Your task to perform on an android device: Open the phone app and click the voicemail tab. Image 0: 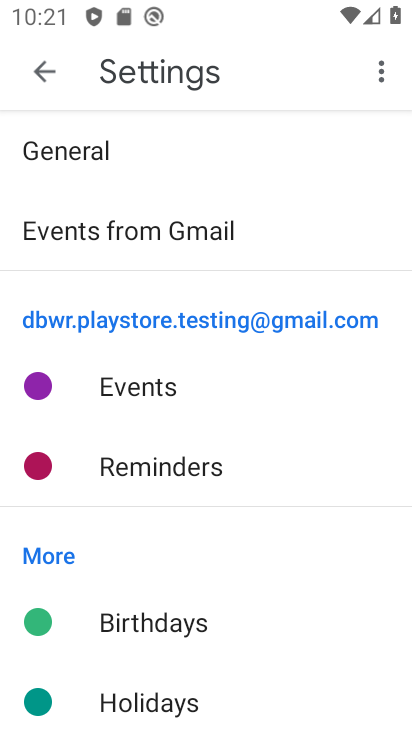
Step 0: press home button
Your task to perform on an android device: Open the phone app and click the voicemail tab. Image 1: 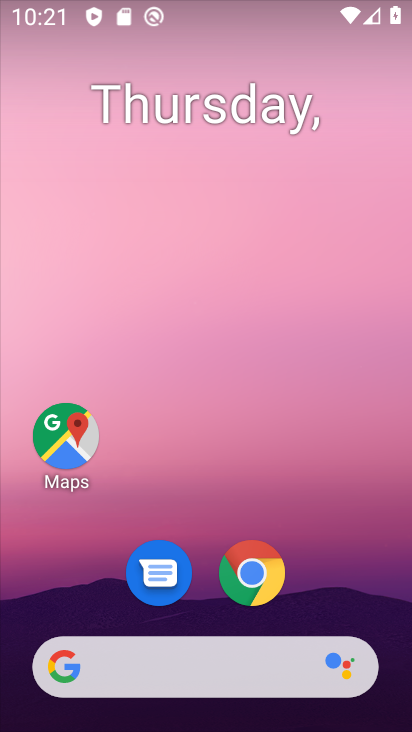
Step 1: drag from (304, 588) to (298, 130)
Your task to perform on an android device: Open the phone app and click the voicemail tab. Image 2: 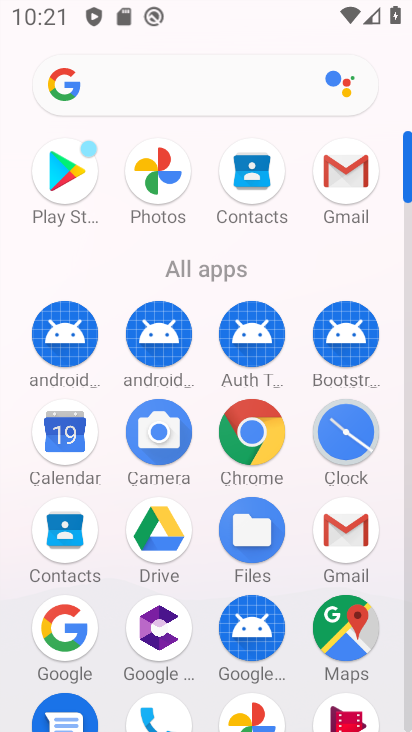
Step 2: drag from (284, 692) to (301, 535)
Your task to perform on an android device: Open the phone app and click the voicemail tab. Image 3: 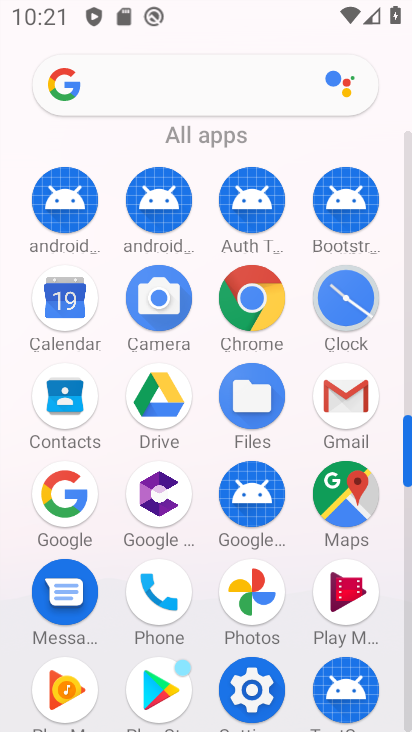
Step 3: click (156, 597)
Your task to perform on an android device: Open the phone app and click the voicemail tab. Image 4: 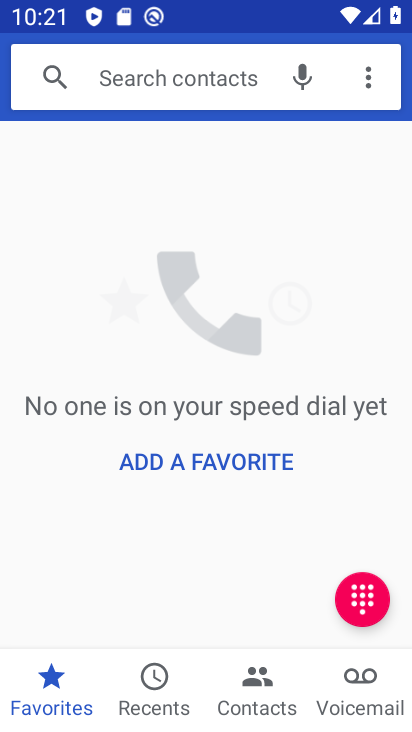
Step 4: click (375, 683)
Your task to perform on an android device: Open the phone app and click the voicemail tab. Image 5: 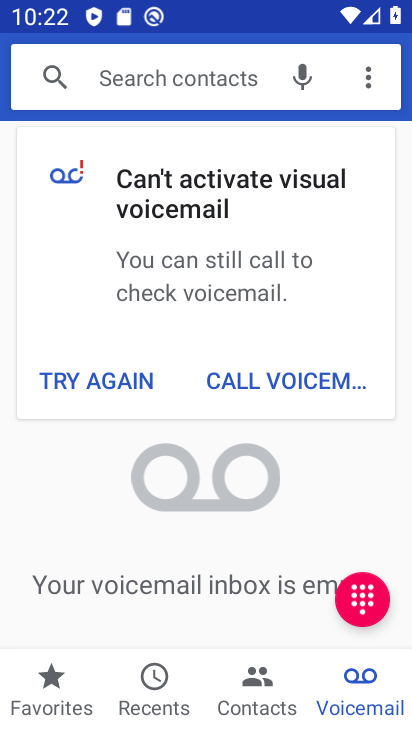
Step 5: task complete